Your task to perform on an android device: Open CNN.com Image 0: 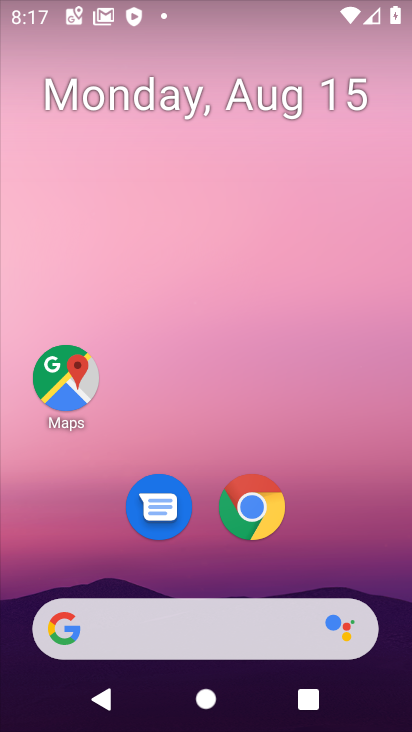
Step 0: click (265, 499)
Your task to perform on an android device: Open CNN.com Image 1: 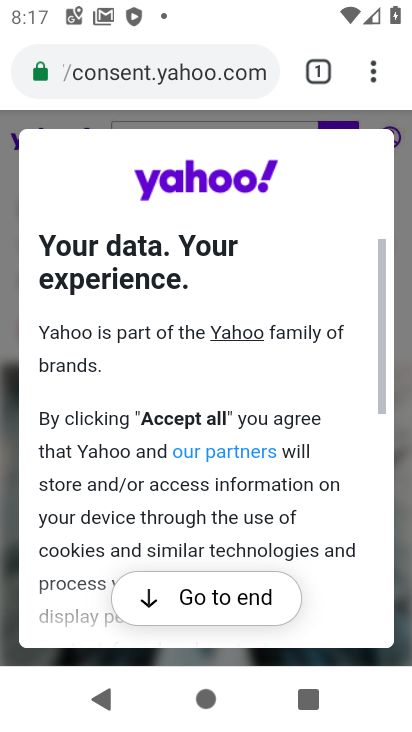
Step 1: click (155, 82)
Your task to perform on an android device: Open CNN.com Image 2: 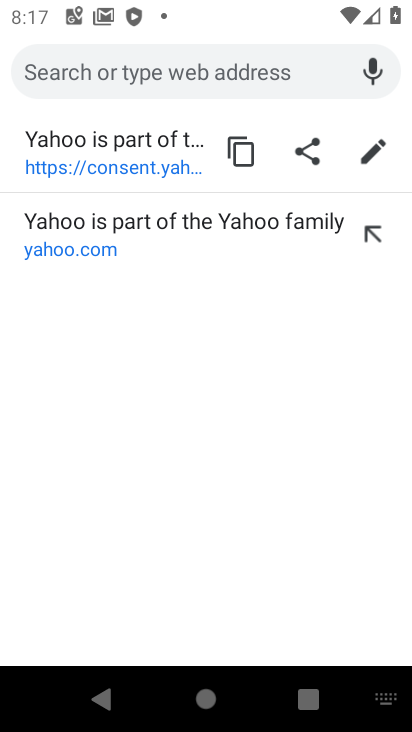
Step 2: type "cnn.com"
Your task to perform on an android device: Open CNN.com Image 3: 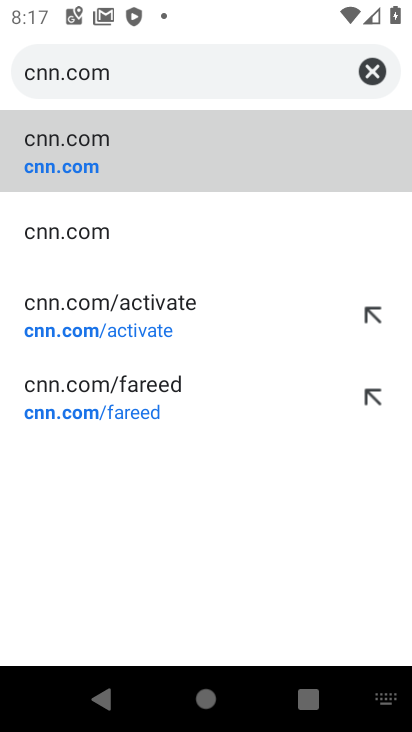
Step 3: click (165, 142)
Your task to perform on an android device: Open CNN.com Image 4: 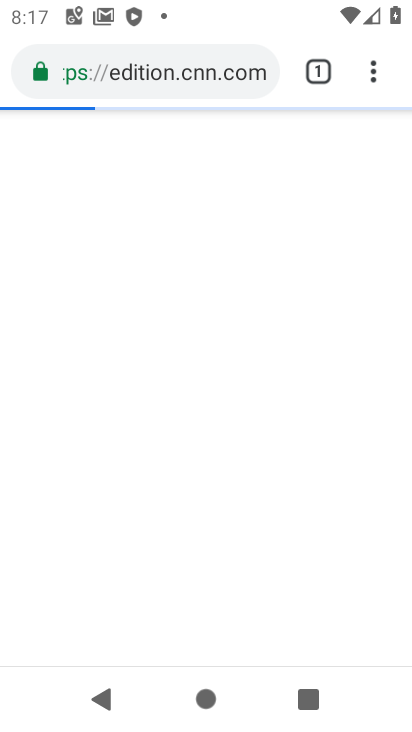
Step 4: task complete